Your task to perform on an android device: Show me productivity apps on the Play Store Image 0: 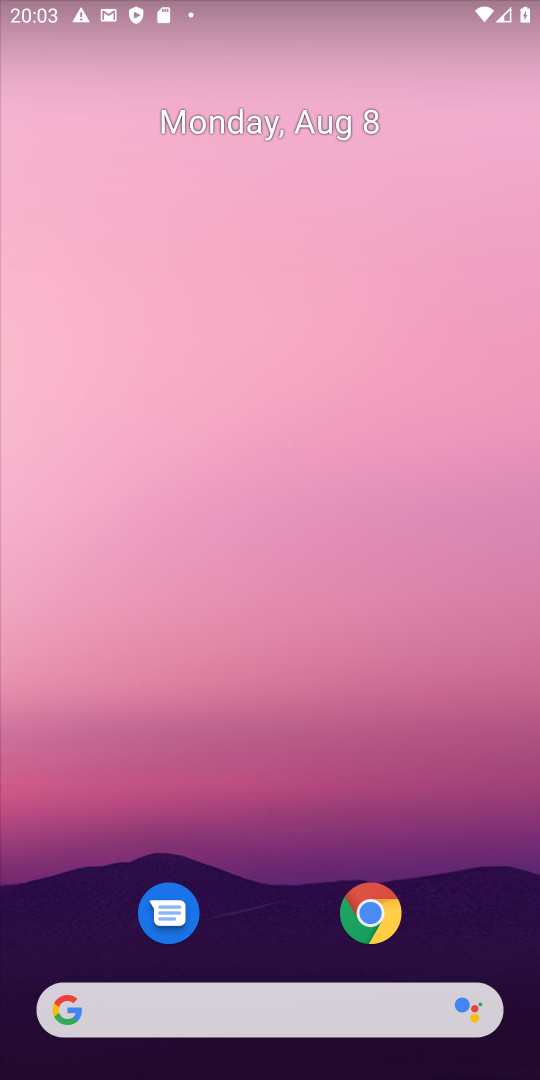
Step 0: drag from (252, 809) to (226, 715)
Your task to perform on an android device: Show me productivity apps on the Play Store Image 1: 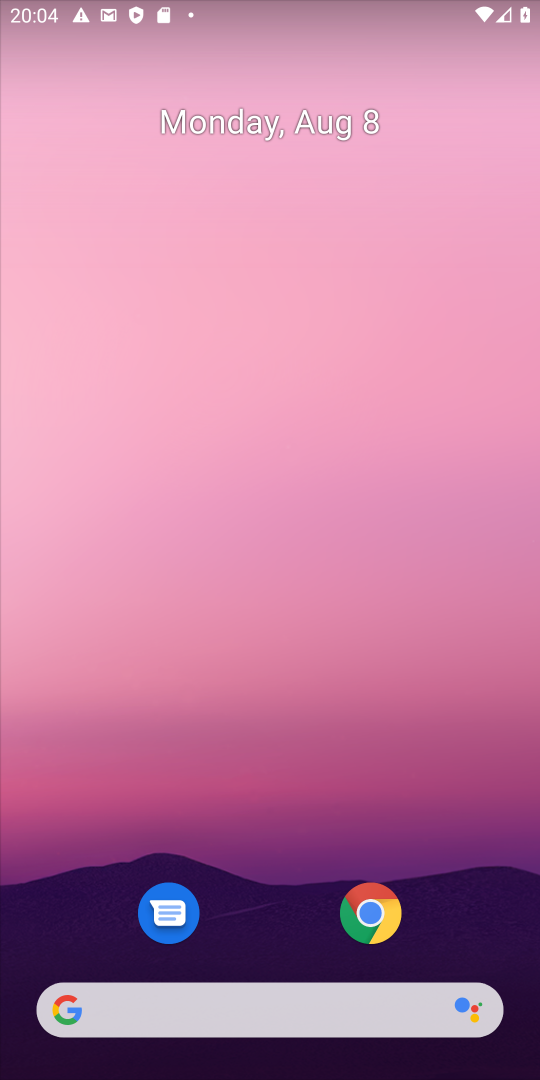
Step 1: drag from (279, 918) to (304, 15)
Your task to perform on an android device: Show me productivity apps on the Play Store Image 2: 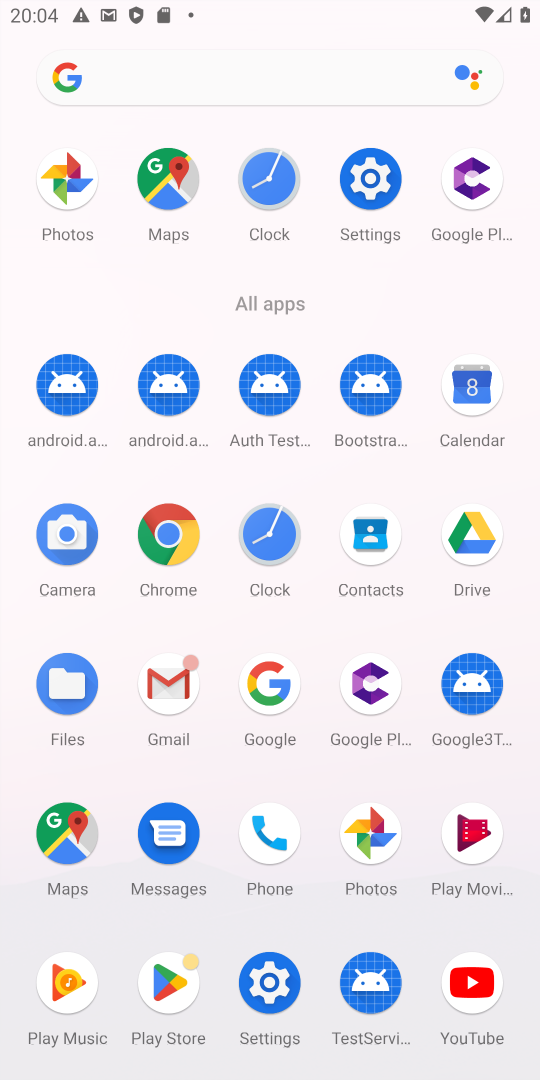
Step 2: click (187, 994)
Your task to perform on an android device: Show me productivity apps on the Play Store Image 3: 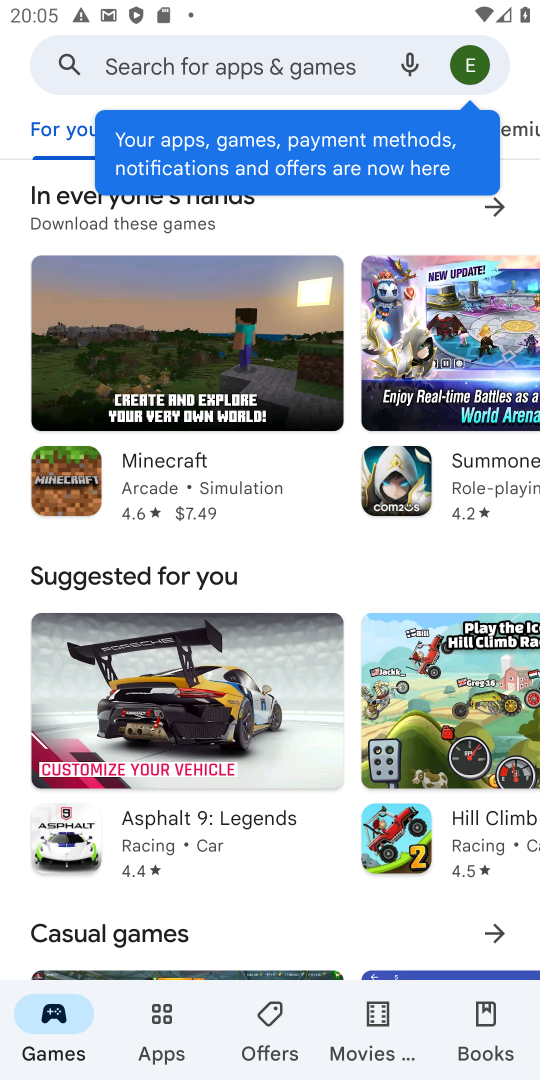
Step 3: click (153, 78)
Your task to perform on an android device: Show me productivity apps on the Play Store Image 4: 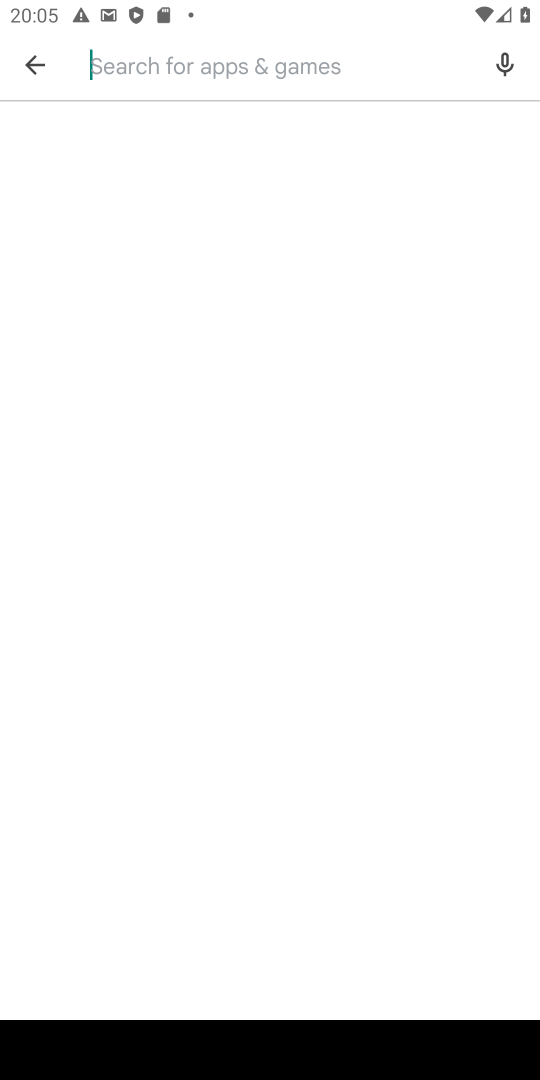
Step 4: type "productivity apps"
Your task to perform on an android device: Show me productivity apps on the Play Store Image 5: 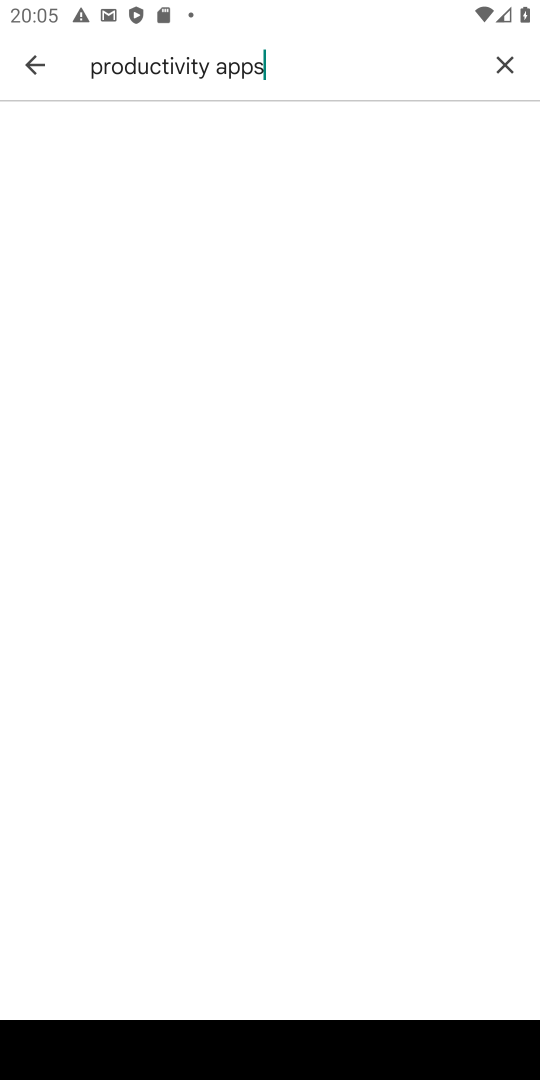
Step 5: type ""
Your task to perform on an android device: Show me productivity apps on the Play Store Image 6: 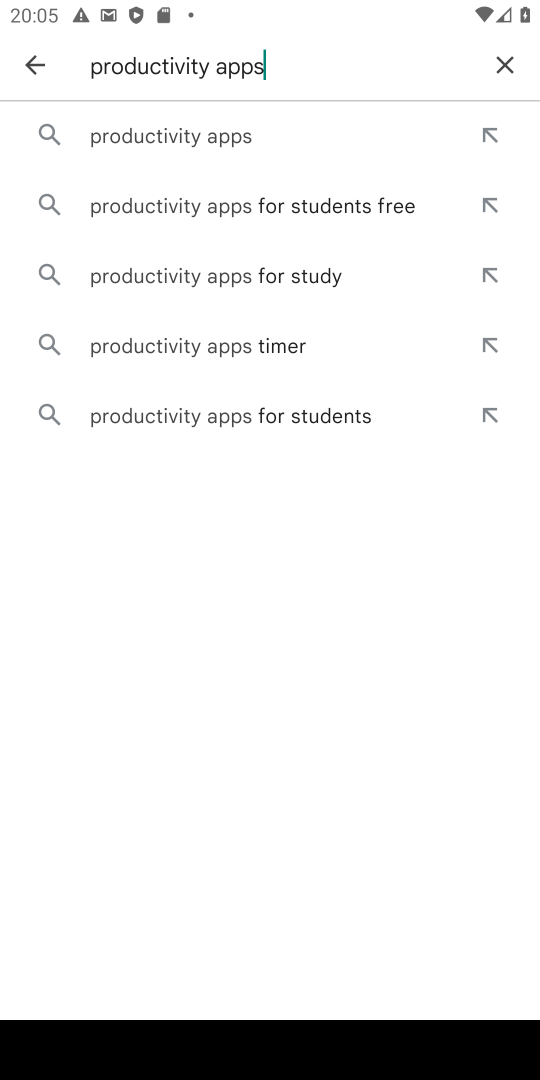
Step 6: click (206, 140)
Your task to perform on an android device: Show me productivity apps on the Play Store Image 7: 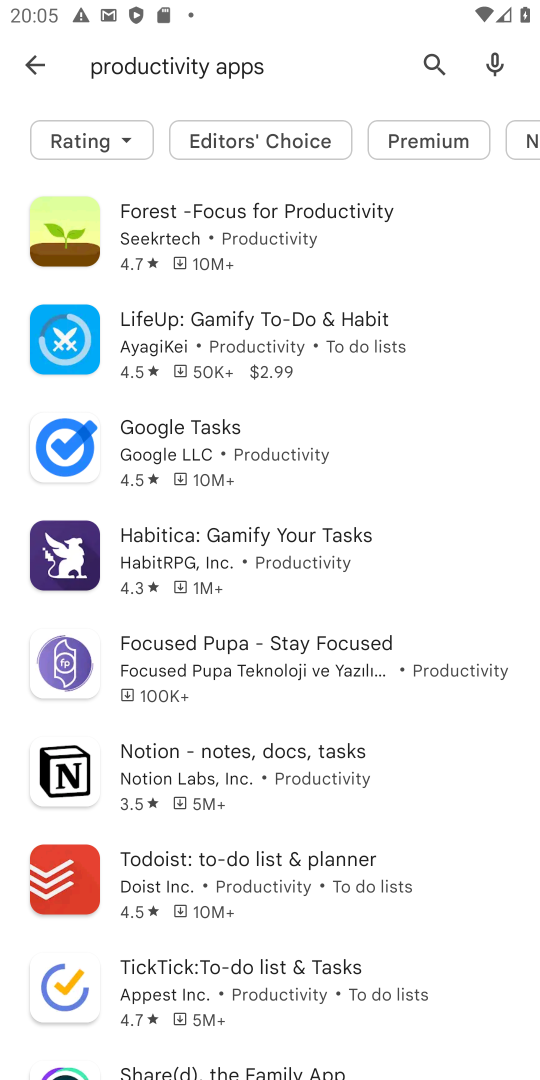
Step 7: task complete